Your task to perform on an android device: Open network settings Image 0: 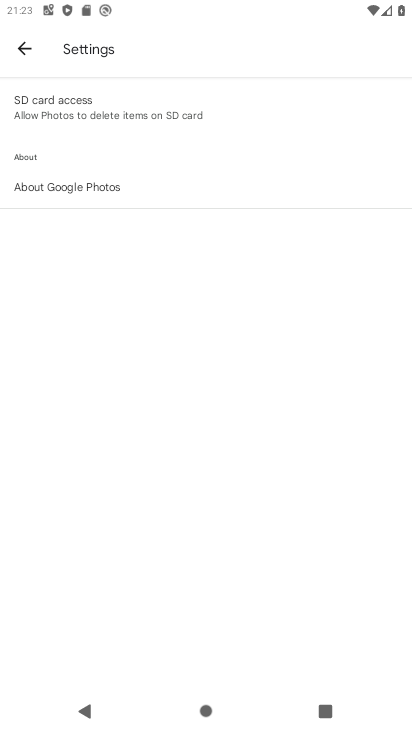
Step 0: press home button
Your task to perform on an android device: Open network settings Image 1: 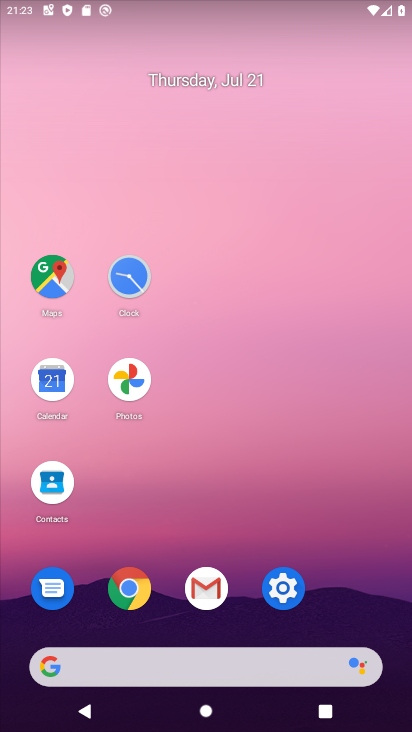
Step 1: click (286, 589)
Your task to perform on an android device: Open network settings Image 2: 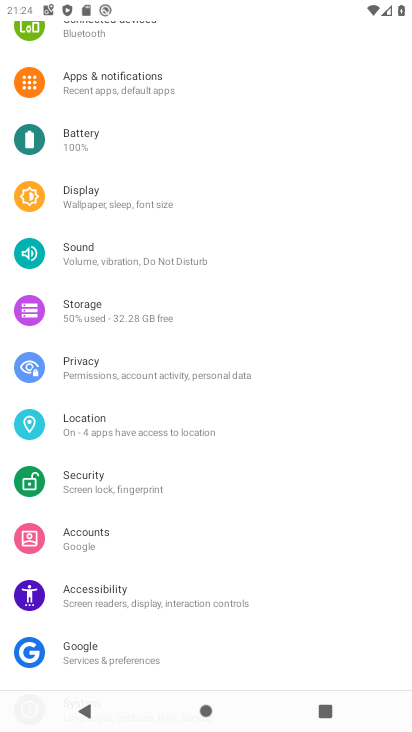
Step 2: task complete